Your task to perform on an android device: turn on location history Image 0: 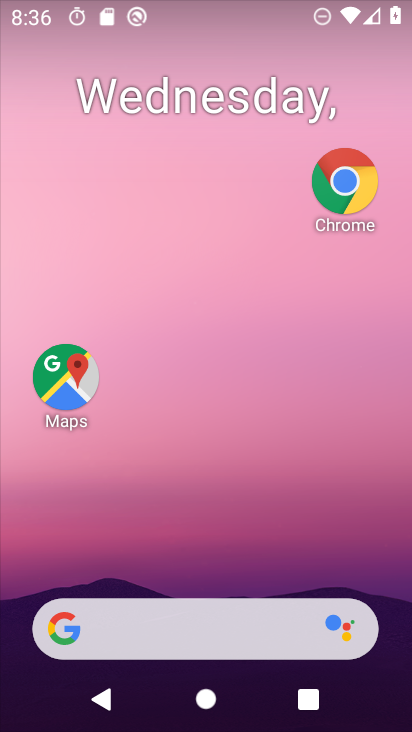
Step 0: drag from (253, 667) to (261, 192)
Your task to perform on an android device: turn on location history Image 1: 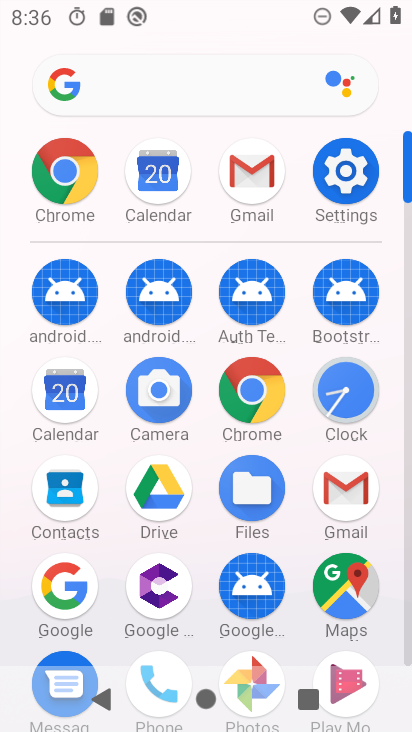
Step 1: click (356, 174)
Your task to perform on an android device: turn on location history Image 2: 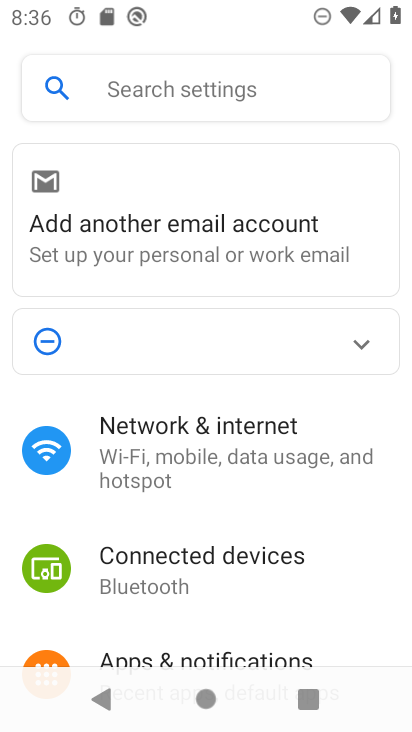
Step 2: click (208, 99)
Your task to perform on an android device: turn on location history Image 3: 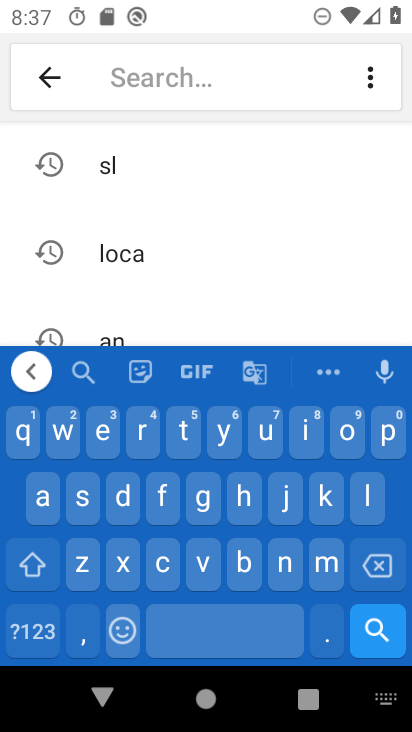
Step 3: click (134, 251)
Your task to perform on an android device: turn on location history Image 4: 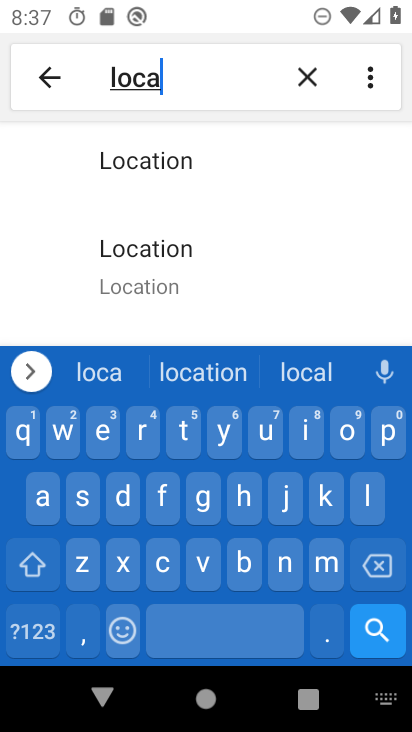
Step 4: click (131, 262)
Your task to perform on an android device: turn on location history Image 5: 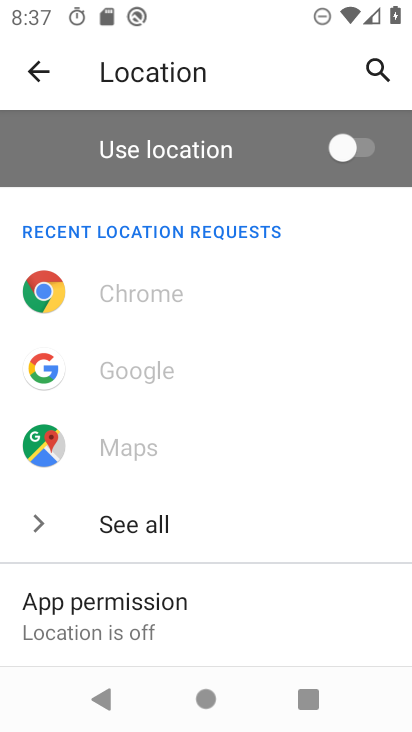
Step 5: drag from (185, 579) to (203, 236)
Your task to perform on an android device: turn on location history Image 6: 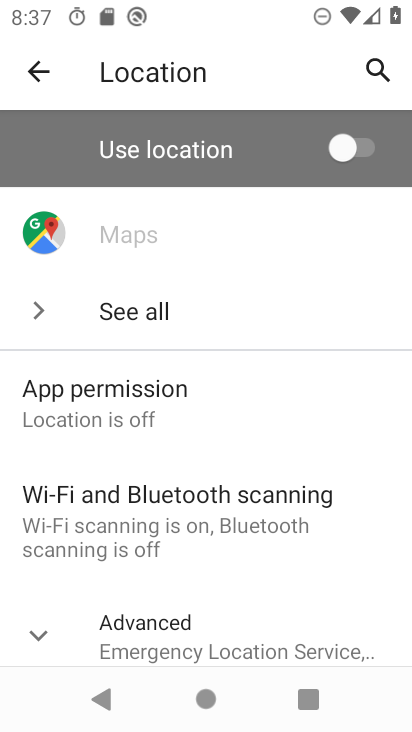
Step 6: drag from (177, 479) to (219, 335)
Your task to perform on an android device: turn on location history Image 7: 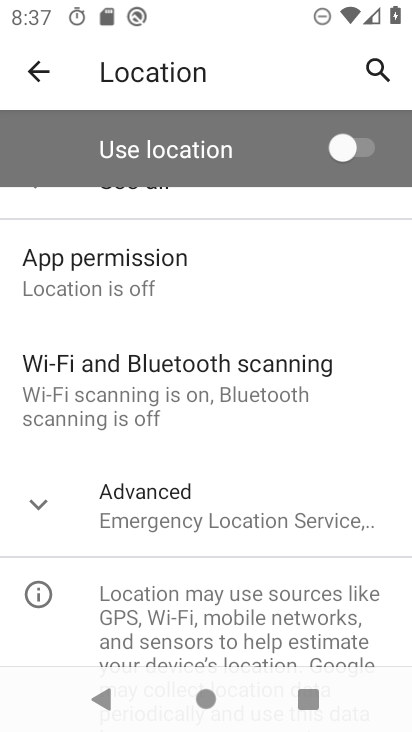
Step 7: click (94, 497)
Your task to perform on an android device: turn on location history Image 8: 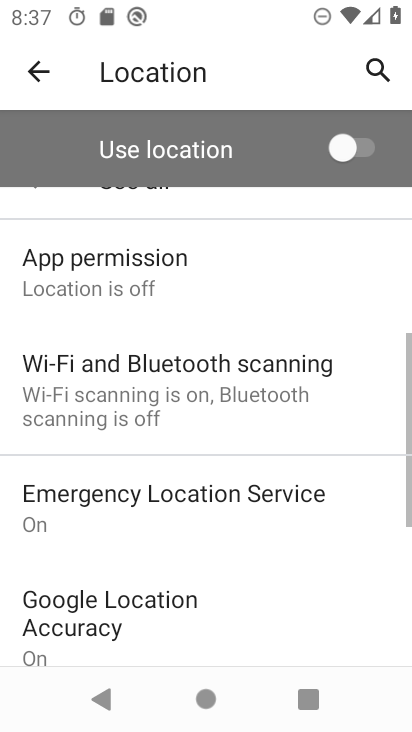
Step 8: drag from (159, 490) to (207, 293)
Your task to perform on an android device: turn on location history Image 9: 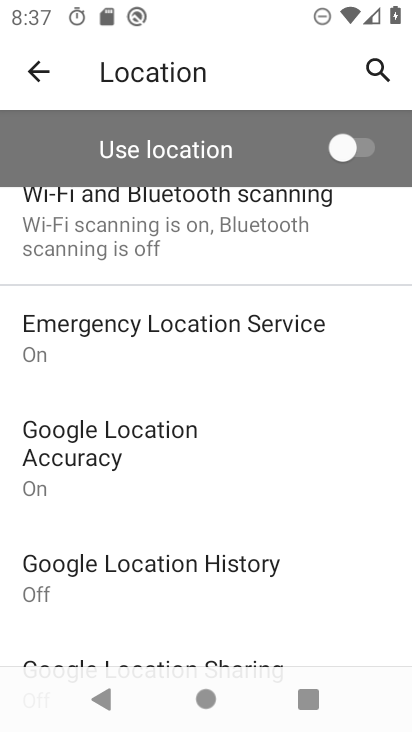
Step 9: click (150, 567)
Your task to perform on an android device: turn on location history Image 10: 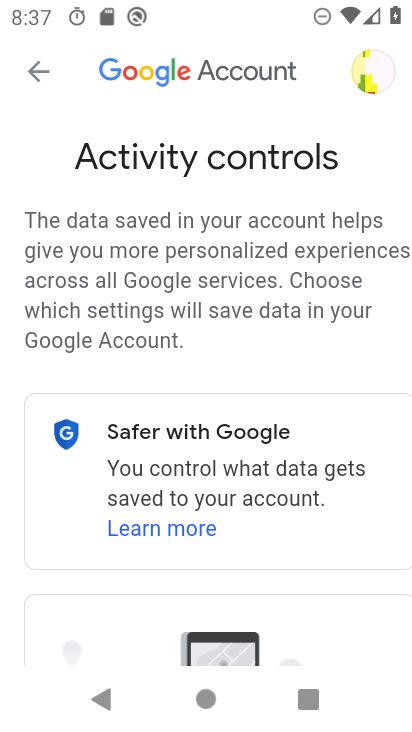
Step 10: drag from (153, 561) to (224, 305)
Your task to perform on an android device: turn on location history Image 11: 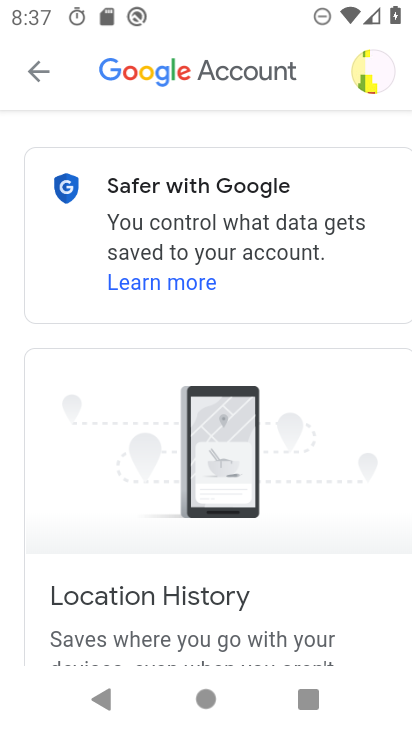
Step 11: drag from (200, 498) to (250, 222)
Your task to perform on an android device: turn on location history Image 12: 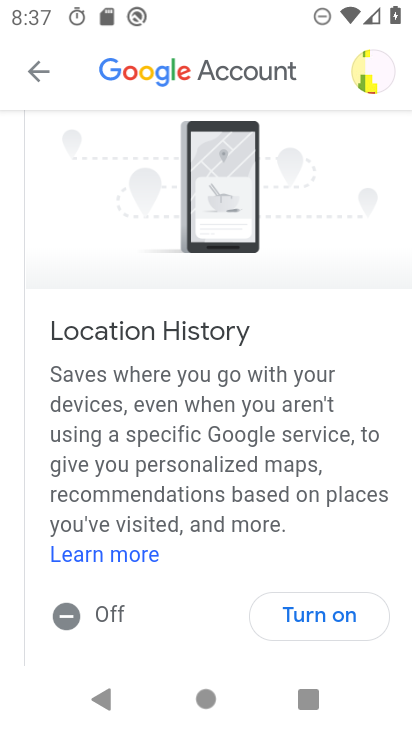
Step 12: drag from (187, 492) to (247, 329)
Your task to perform on an android device: turn on location history Image 13: 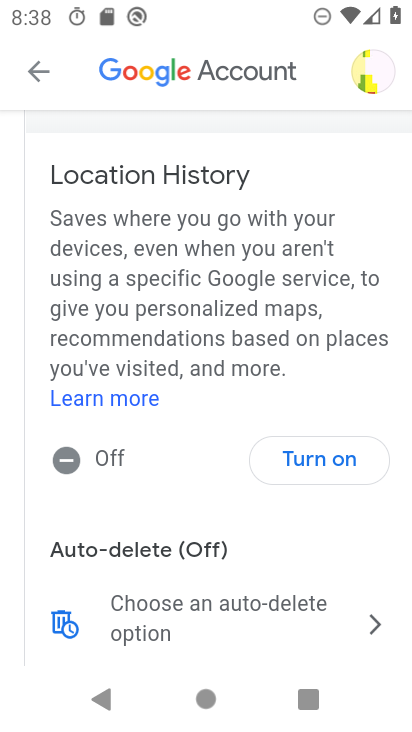
Step 13: click (295, 475)
Your task to perform on an android device: turn on location history Image 14: 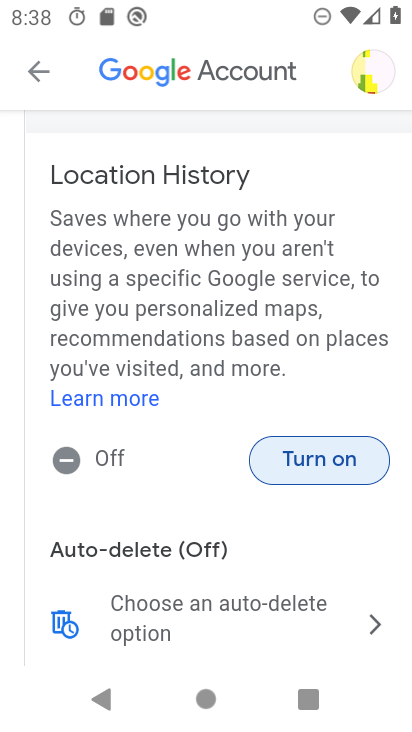
Step 14: task complete